Your task to perform on an android device: Search for pizza restaurants on Maps Image 0: 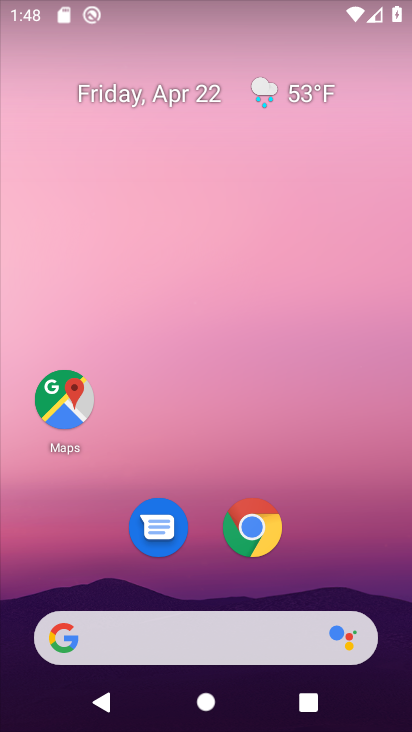
Step 0: click (56, 390)
Your task to perform on an android device: Search for pizza restaurants on Maps Image 1: 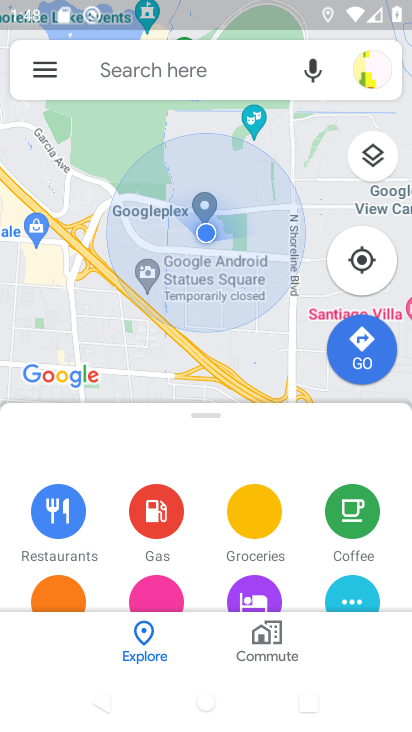
Step 1: click (195, 66)
Your task to perform on an android device: Search for pizza restaurants on Maps Image 2: 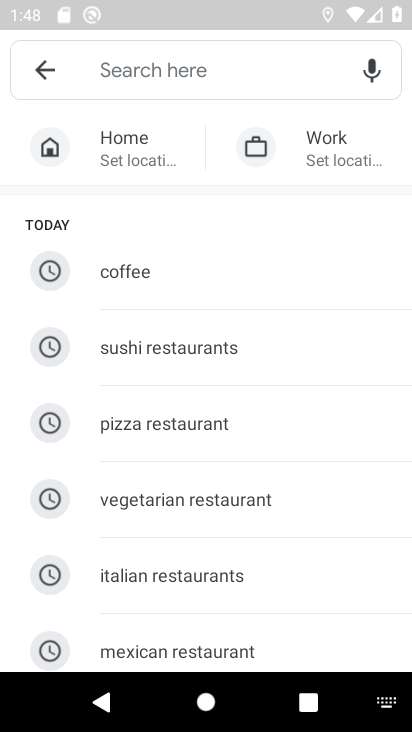
Step 2: click (190, 420)
Your task to perform on an android device: Search for pizza restaurants on Maps Image 3: 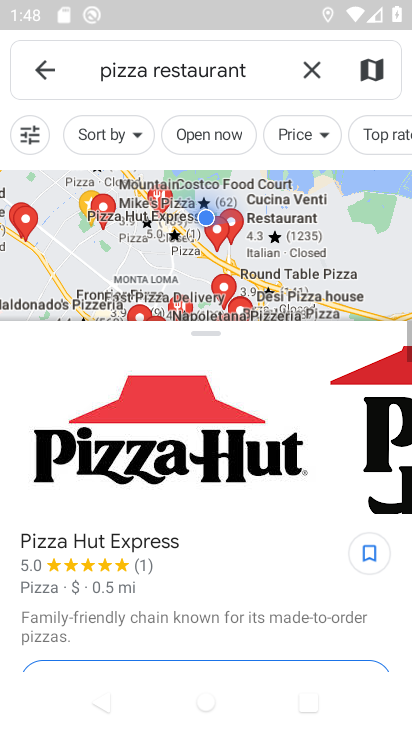
Step 3: task complete